Your task to perform on an android device: Open the calendar app, open the side menu, and click the "Day" option Image 0: 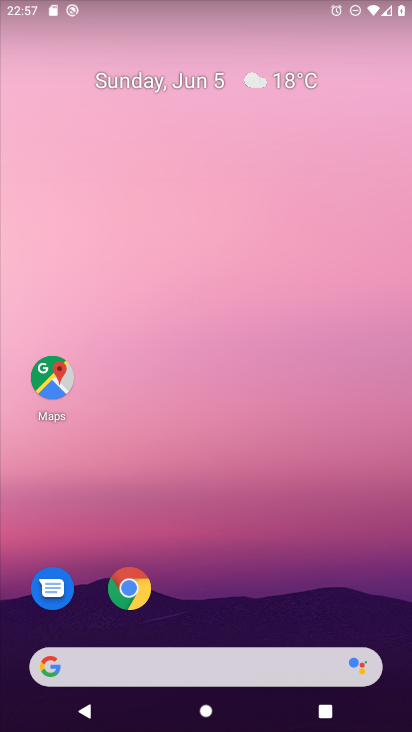
Step 0: drag from (365, 563) to (353, 253)
Your task to perform on an android device: Open the calendar app, open the side menu, and click the "Day" option Image 1: 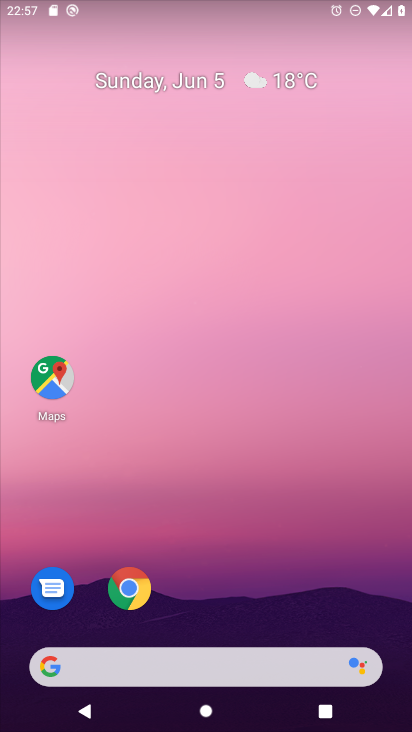
Step 1: drag from (337, 556) to (351, 51)
Your task to perform on an android device: Open the calendar app, open the side menu, and click the "Day" option Image 2: 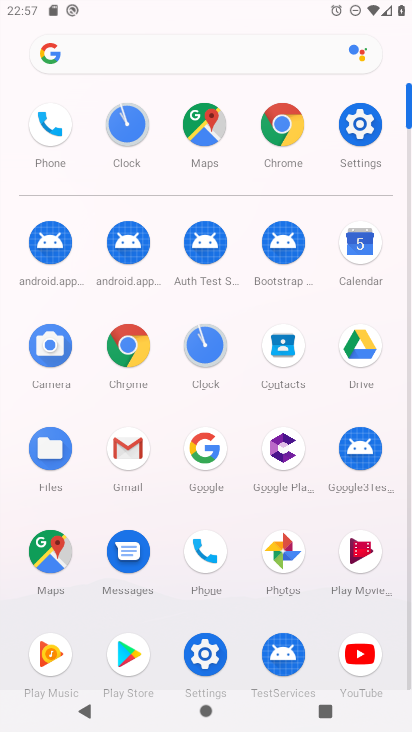
Step 2: click (358, 244)
Your task to perform on an android device: Open the calendar app, open the side menu, and click the "Day" option Image 3: 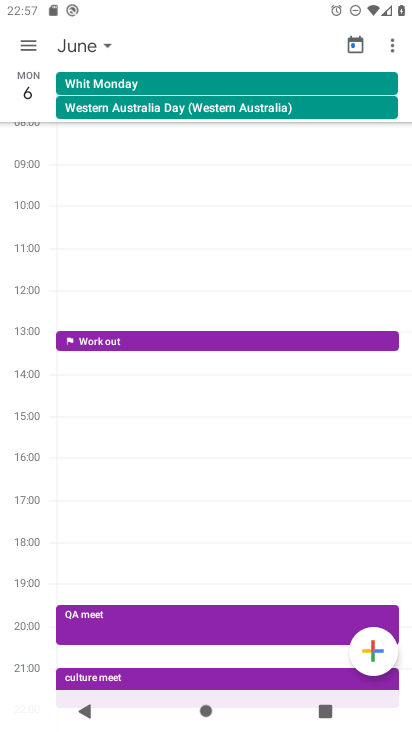
Step 3: click (18, 48)
Your task to perform on an android device: Open the calendar app, open the side menu, and click the "Day" option Image 4: 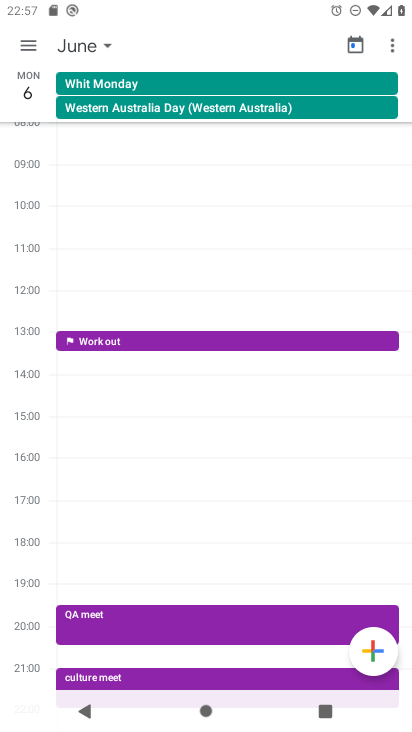
Step 4: click (19, 35)
Your task to perform on an android device: Open the calendar app, open the side menu, and click the "Day" option Image 5: 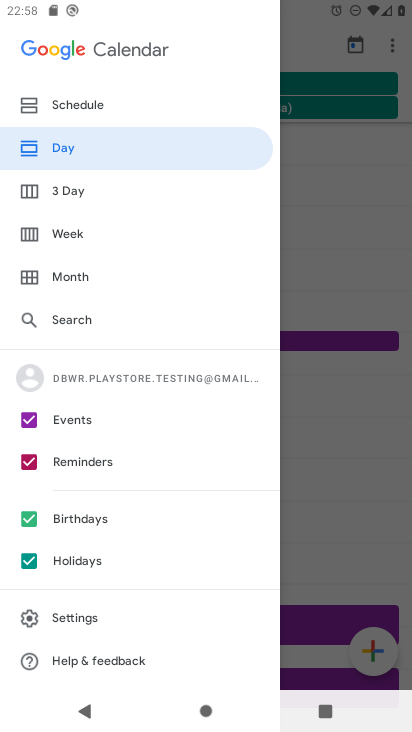
Step 5: task complete